Your task to perform on an android device: check data usage Image 0: 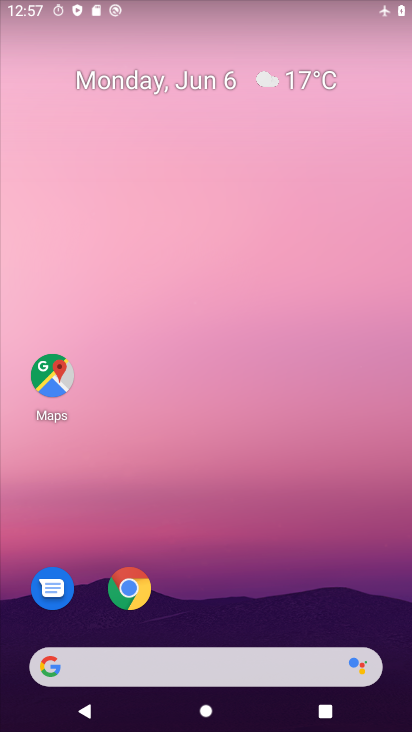
Step 0: drag from (278, 552) to (310, 126)
Your task to perform on an android device: check data usage Image 1: 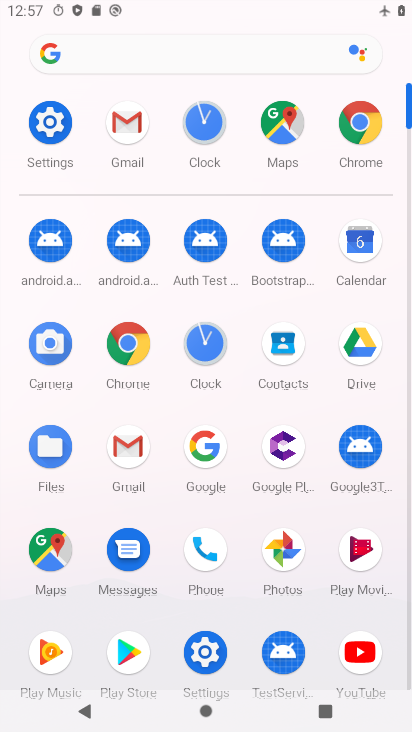
Step 1: click (42, 101)
Your task to perform on an android device: check data usage Image 2: 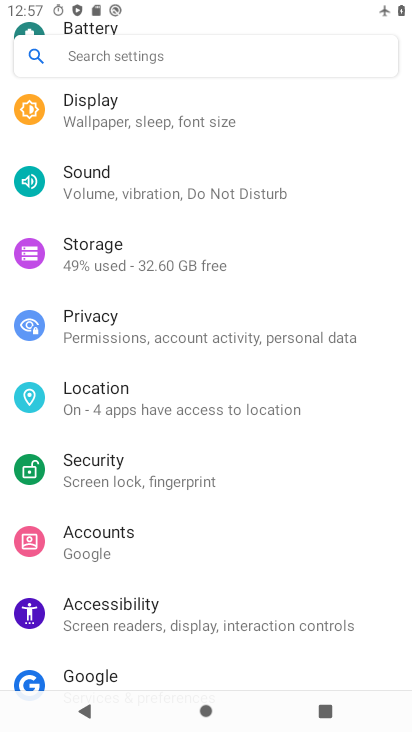
Step 2: drag from (185, 143) to (118, 620)
Your task to perform on an android device: check data usage Image 3: 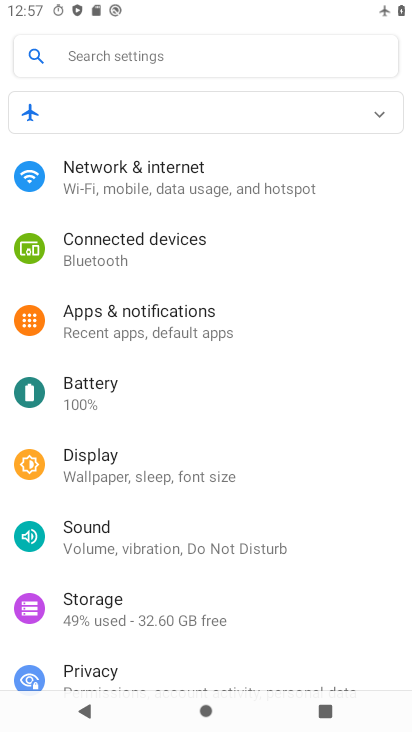
Step 3: click (181, 194)
Your task to perform on an android device: check data usage Image 4: 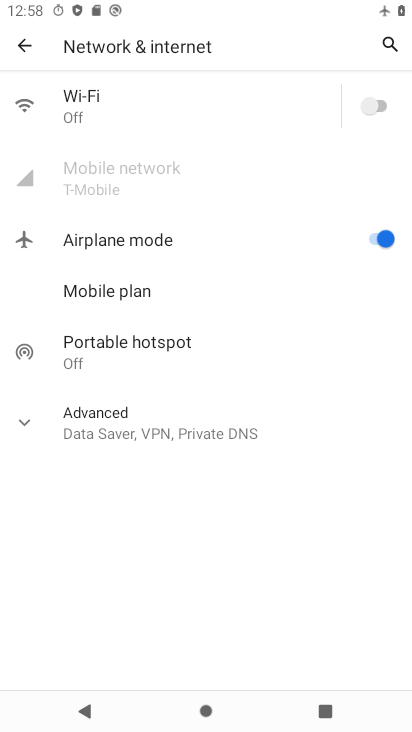
Step 4: click (240, 116)
Your task to perform on an android device: check data usage Image 5: 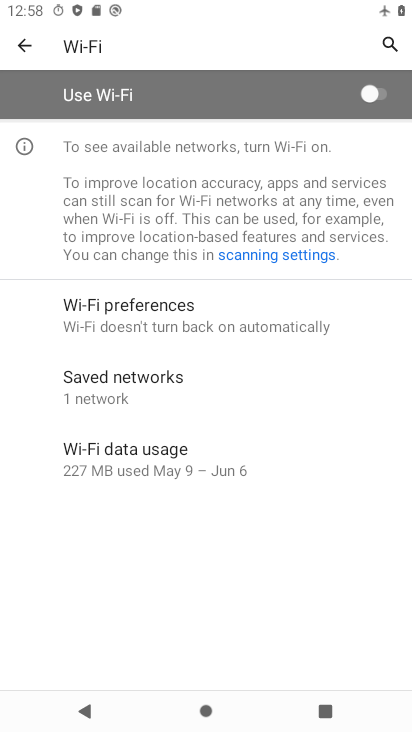
Step 5: click (139, 473)
Your task to perform on an android device: check data usage Image 6: 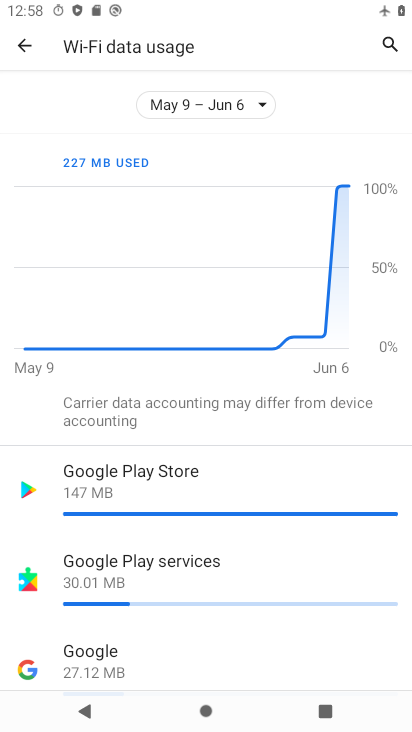
Step 6: task complete